Your task to perform on an android device: Turn on the flashlight Image 0: 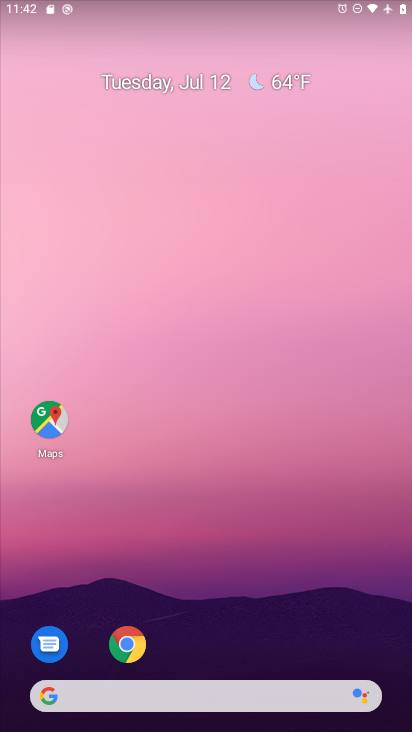
Step 0: drag from (271, 659) to (251, 123)
Your task to perform on an android device: Turn on the flashlight Image 1: 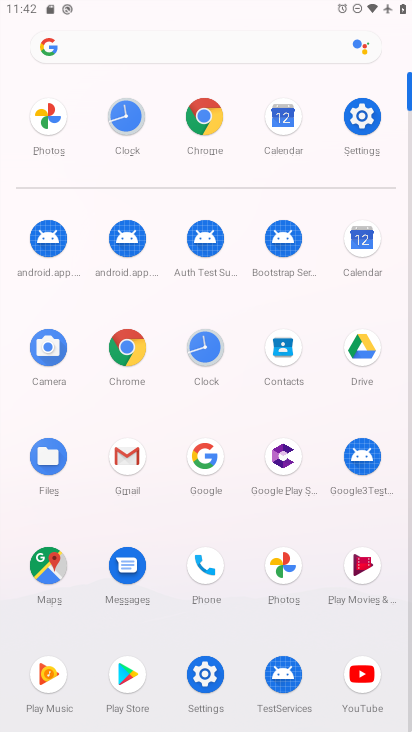
Step 1: click (210, 676)
Your task to perform on an android device: Turn on the flashlight Image 2: 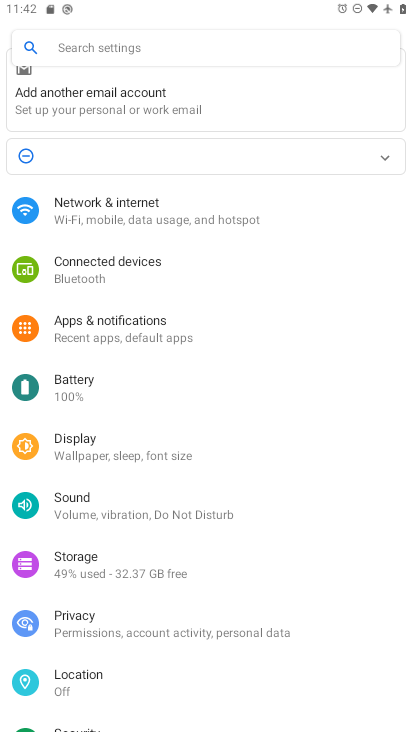
Step 2: click (223, 610)
Your task to perform on an android device: Turn on the flashlight Image 3: 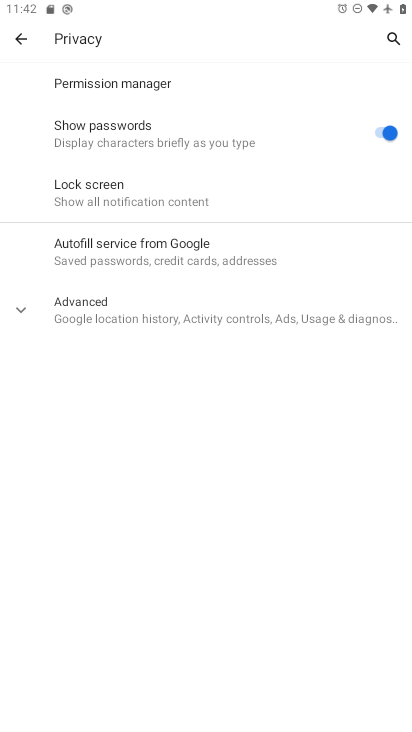
Step 3: task complete